Your task to perform on an android device: turn off smart reply in the gmail app Image 0: 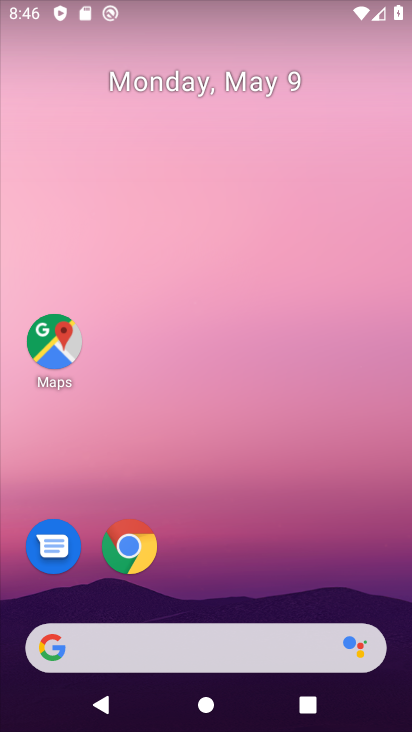
Step 0: drag from (263, 430) to (244, 74)
Your task to perform on an android device: turn off smart reply in the gmail app Image 1: 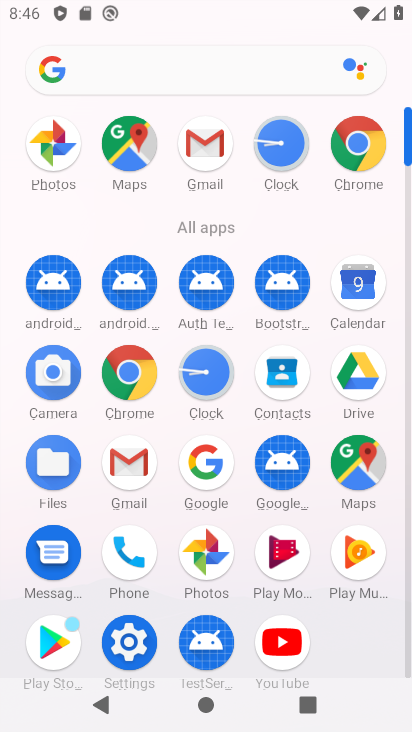
Step 1: click (144, 453)
Your task to perform on an android device: turn off smart reply in the gmail app Image 2: 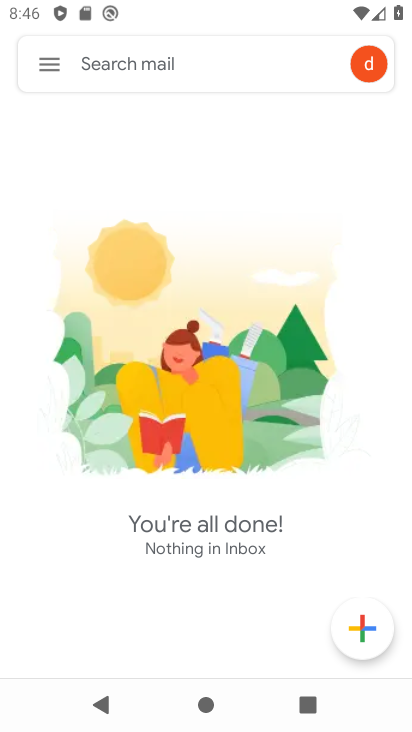
Step 2: click (49, 59)
Your task to perform on an android device: turn off smart reply in the gmail app Image 3: 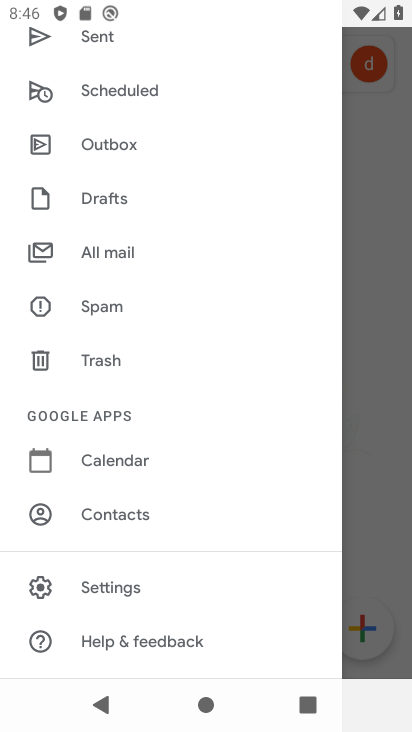
Step 3: click (122, 584)
Your task to perform on an android device: turn off smart reply in the gmail app Image 4: 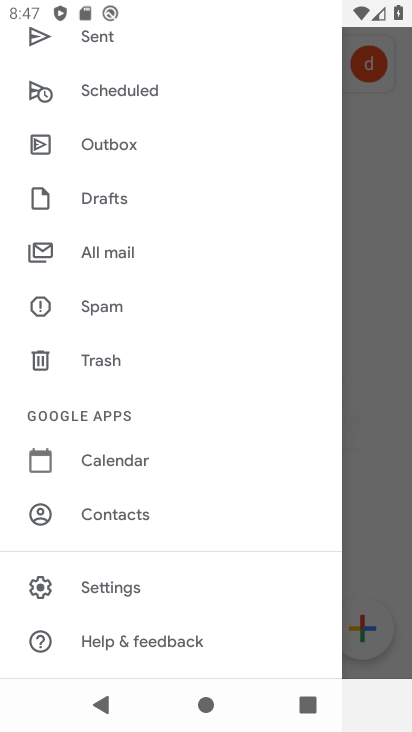
Step 4: click (105, 581)
Your task to perform on an android device: turn off smart reply in the gmail app Image 5: 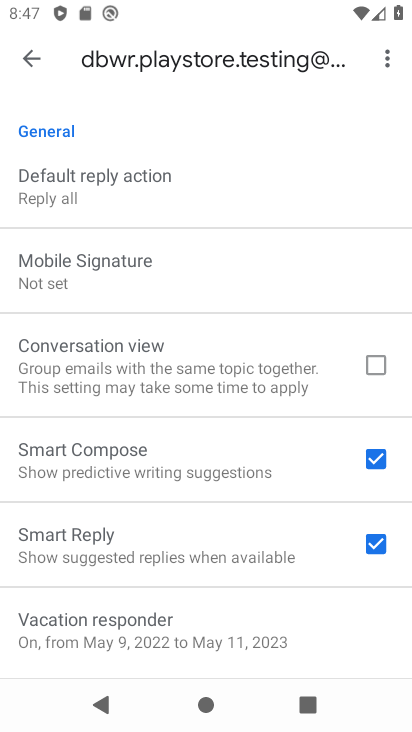
Step 5: click (377, 547)
Your task to perform on an android device: turn off smart reply in the gmail app Image 6: 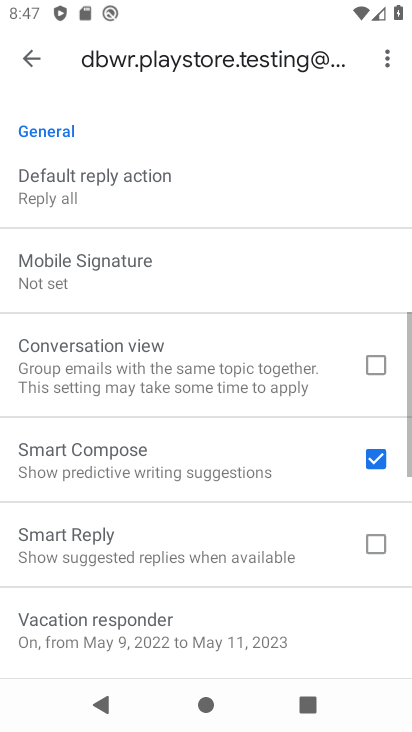
Step 6: task complete